Your task to perform on an android device: Turn on the flashlight Image 0: 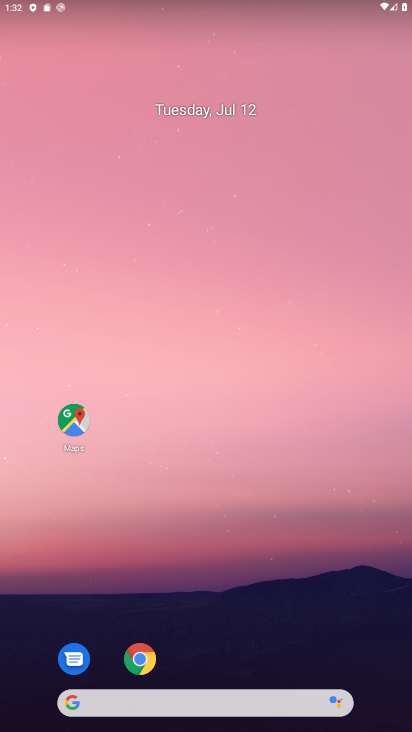
Step 0: drag from (216, 659) to (246, 115)
Your task to perform on an android device: Turn on the flashlight Image 1: 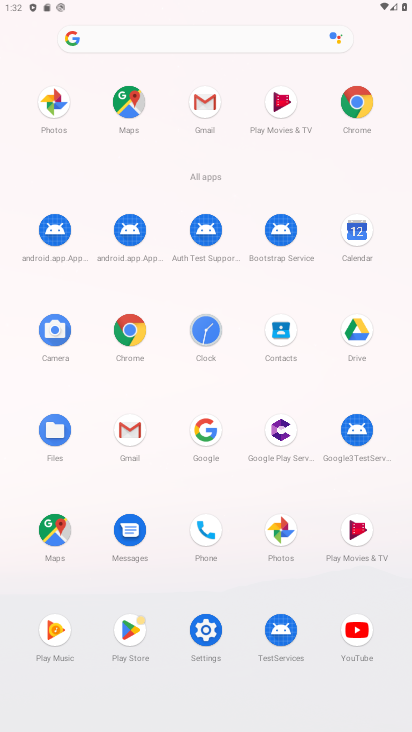
Step 1: click (207, 633)
Your task to perform on an android device: Turn on the flashlight Image 2: 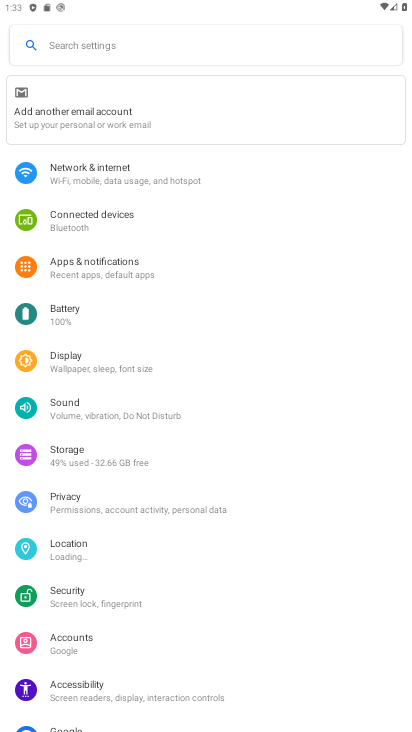
Step 2: click (203, 39)
Your task to perform on an android device: Turn on the flashlight Image 3: 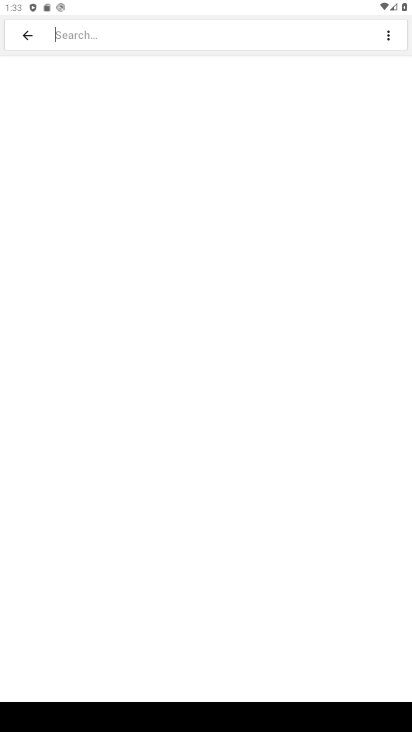
Step 3: type "flashlight"
Your task to perform on an android device: Turn on the flashlight Image 4: 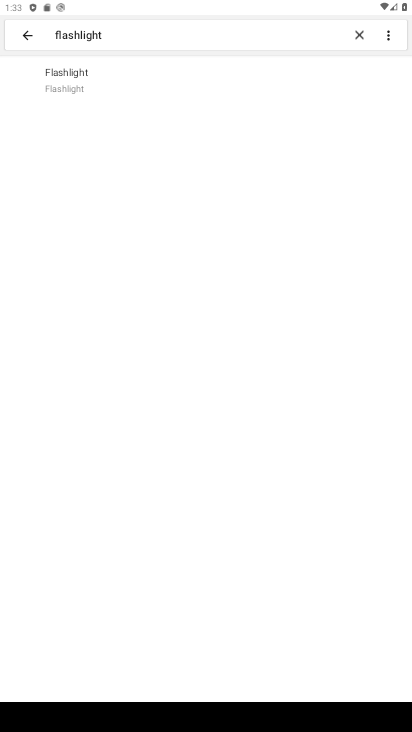
Step 4: task complete